Your task to perform on an android device: change the upload size in google photos Image 0: 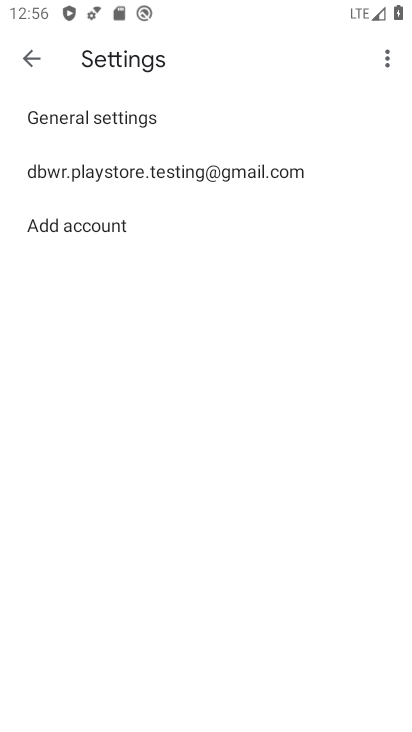
Step 0: press home button
Your task to perform on an android device: change the upload size in google photos Image 1: 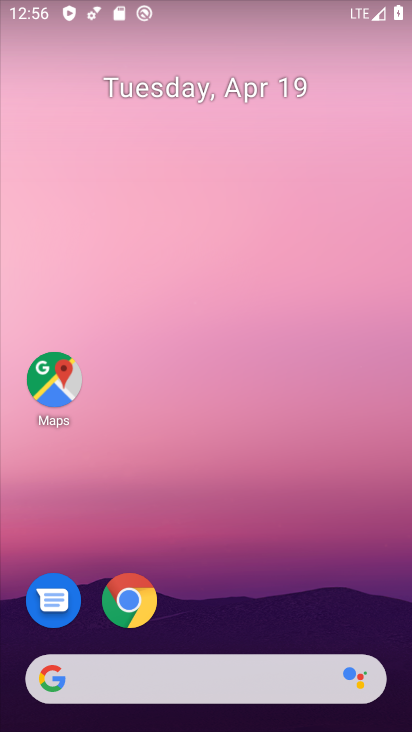
Step 1: drag from (238, 642) to (283, 55)
Your task to perform on an android device: change the upload size in google photos Image 2: 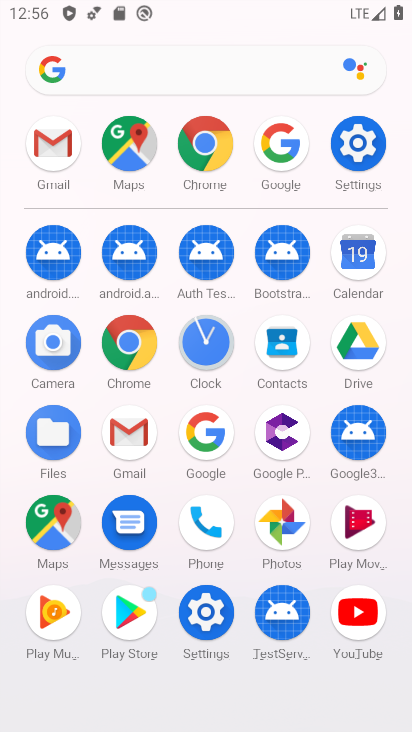
Step 2: click (275, 526)
Your task to perform on an android device: change the upload size in google photos Image 3: 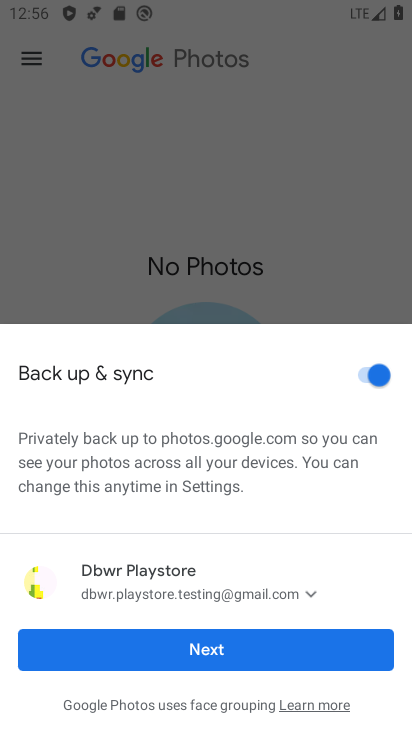
Step 3: click (201, 651)
Your task to perform on an android device: change the upload size in google photos Image 4: 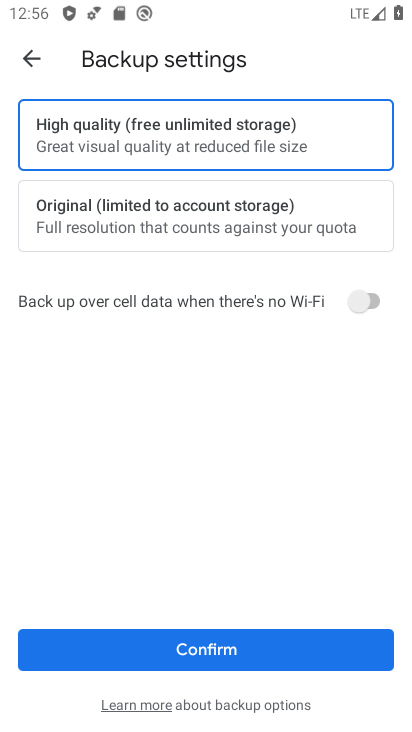
Step 4: click (106, 212)
Your task to perform on an android device: change the upload size in google photos Image 5: 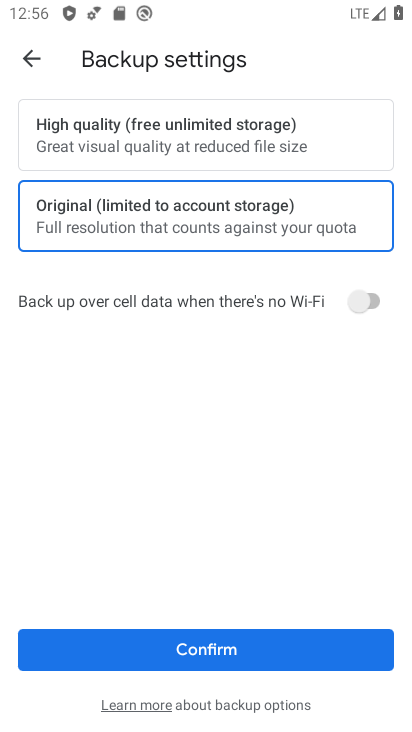
Step 5: click (208, 651)
Your task to perform on an android device: change the upload size in google photos Image 6: 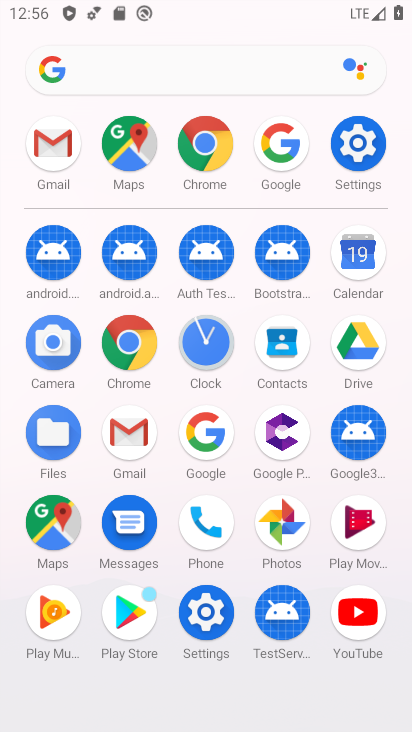
Step 6: task complete